Your task to perform on an android device: Open Google Chrome Image 0: 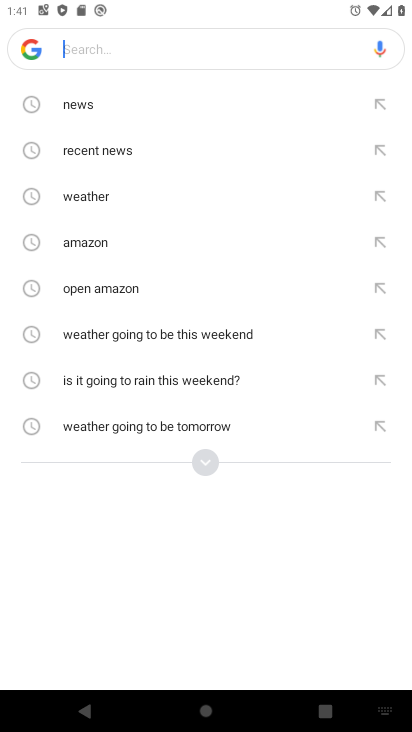
Step 0: press back button
Your task to perform on an android device: Open Google Chrome Image 1: 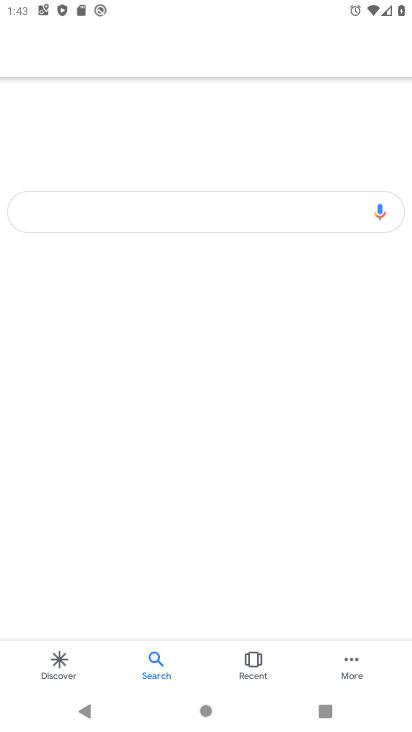
Step 1: press back button
Your task to perform on an android device: Open Google Chrome Image 2: 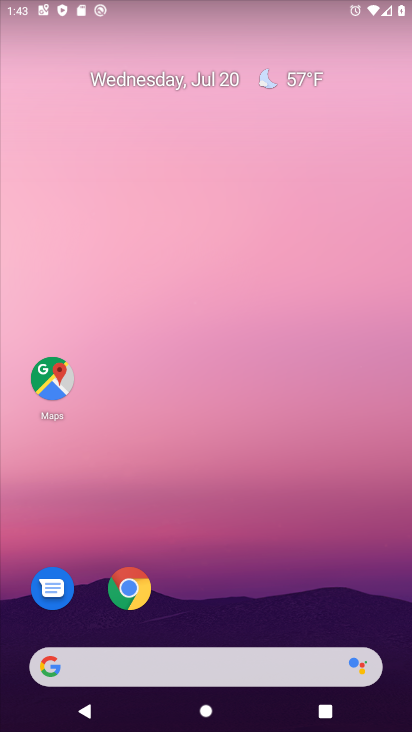
Step 2: click (137, 604)
Your task to perform on an android device: Open Google Chrome Image 3: 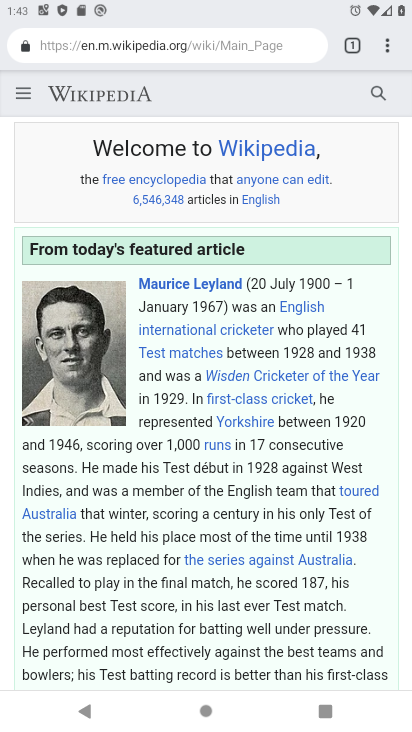
Step 3: press home button
Your task to perform on an android device: Open Google Chrome Image 4: 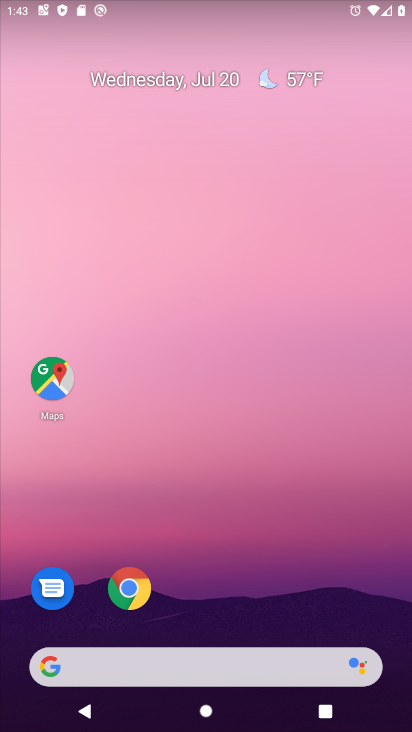
Step 4: click (123, 591)
Your task to perform on an android device: Open Google Chrome Image 5: 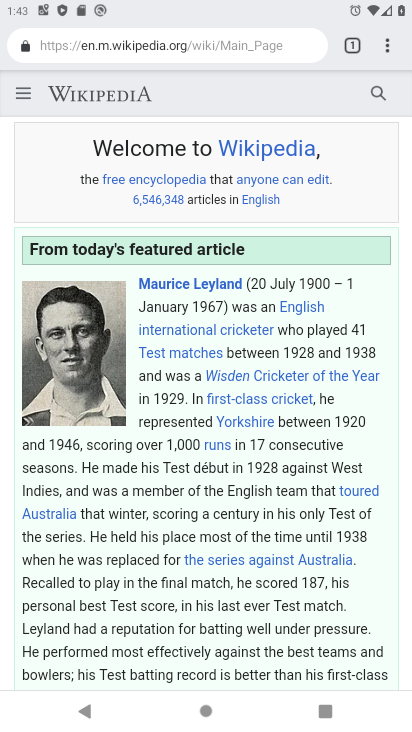
Step 5: task complete